Your task to perform on an android device: turn off location Image 0: 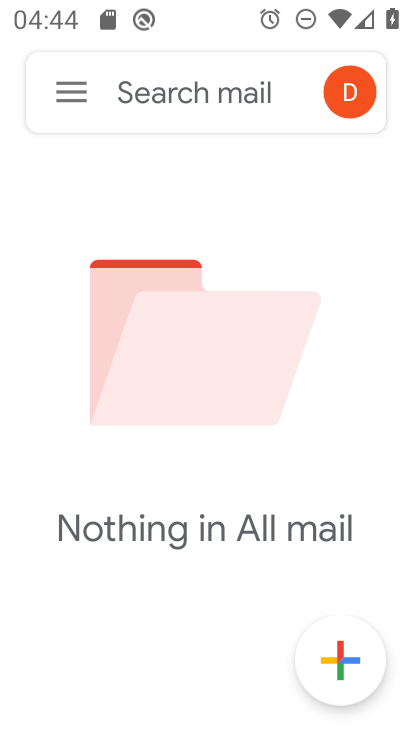
Step 0: press home button
Your task to perform on an android device: turn off location Image 1: 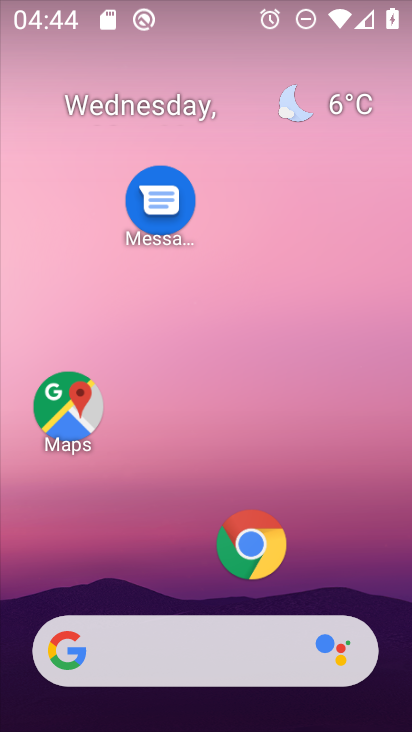
Step 1: drag from (117, 579) to (213, 64)
Your task to perform on an android device: turn off location Image 2: 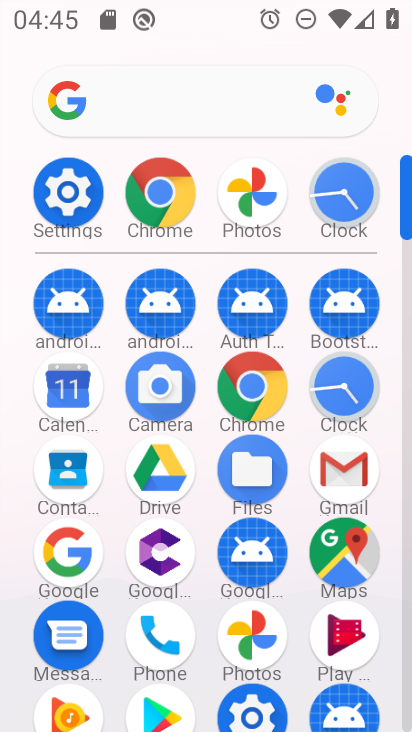
Step 2: click (67, 181)
Your task to perform on an android device: turn off location Image 3: 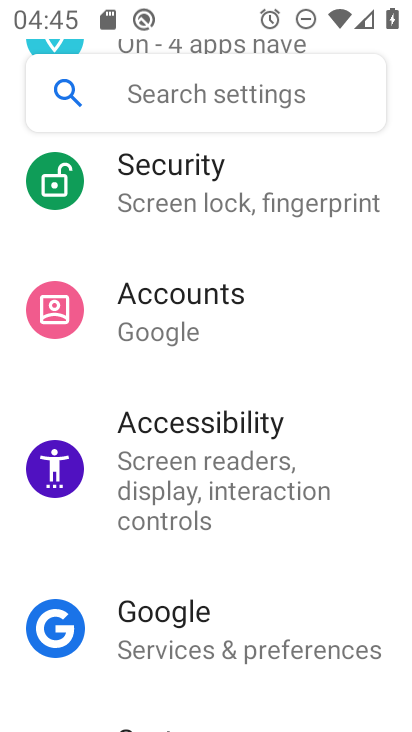
Step 3: drag from (188, 243) to (200, 289)
Your task to perform on an android device: turn off location Image 4: 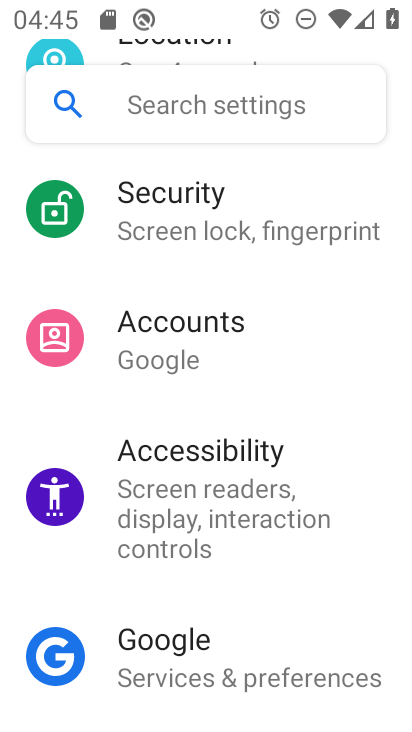
Step 4: drag from (233, 251) to (241, 416)
Your task to perform on an android device: turn off location Image 5: 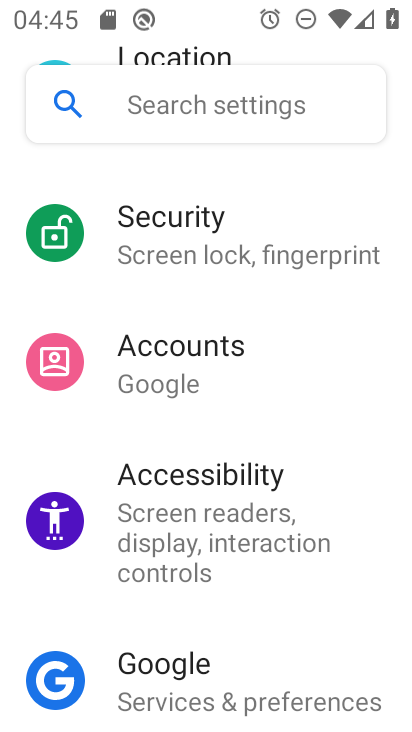
Step 5: drag from (262, 253) to (288, 408)
Your task to perform on an android device: turn off location Image 6: 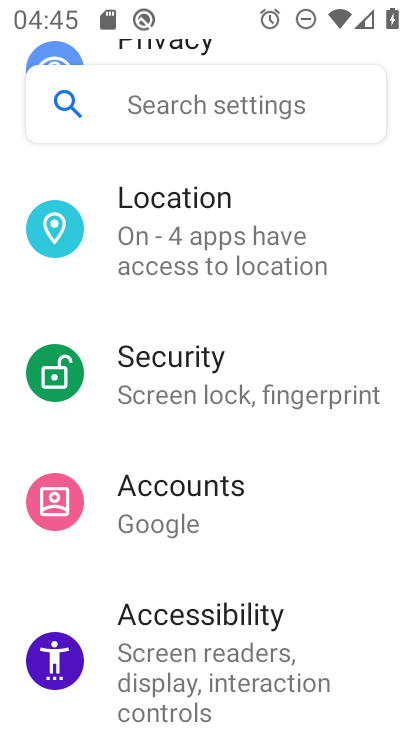
Step 6: click (257, 234)
Your task to perform on an android device: turn off location Image 7: 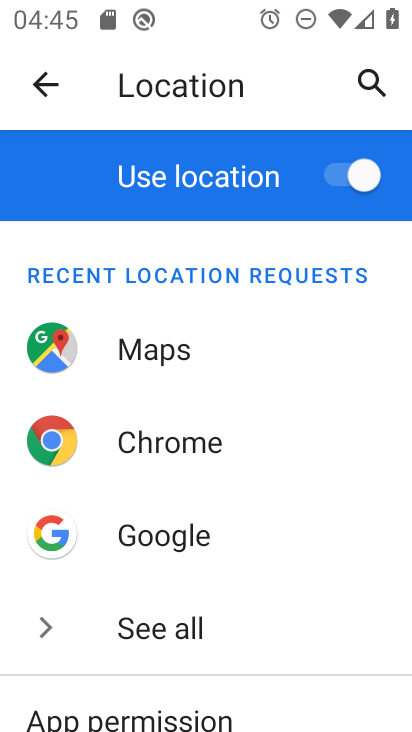
Step 7: click (351, 191)
Your task to perform on an android device: turn off location Image 8: 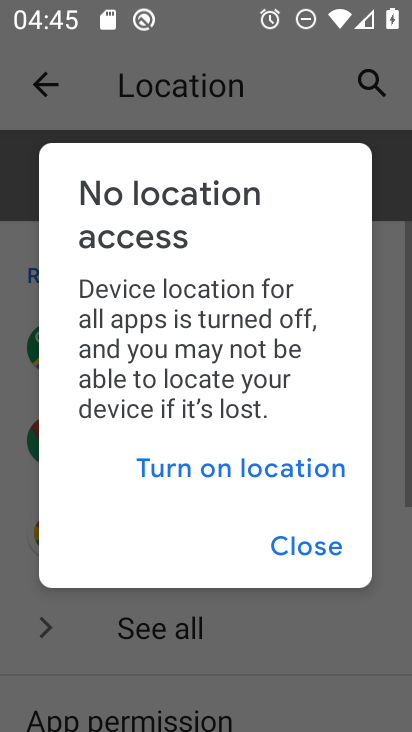
Step 8: task complete